Your task to perform on an android device: refresh tabs in the chrome app Image 0: 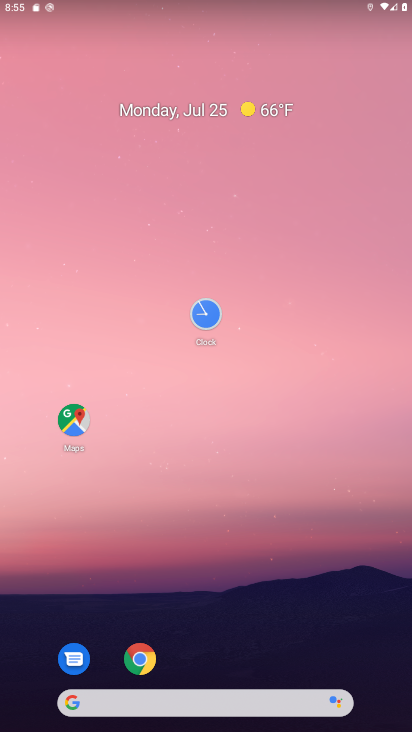
Step 0: drag from (255, 402) to (213, 149)
Your task to perform on an android device: refresh tabs in the chrome app Image 1: 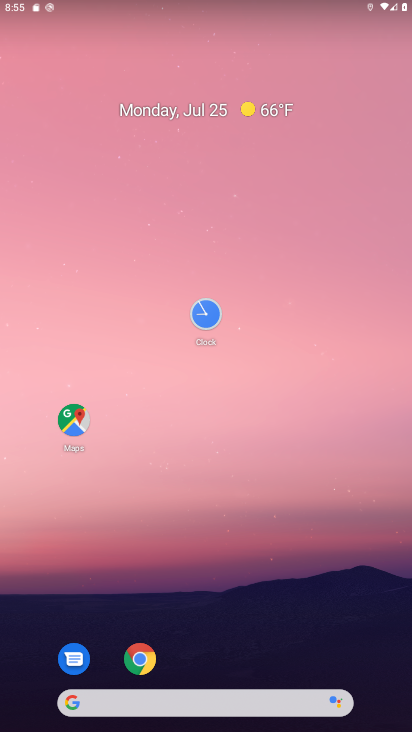
Step 1: drag from (235, 491) to (175, 70)
Your task to perform on an android device: refresh tabs in the chrome app Image 2: 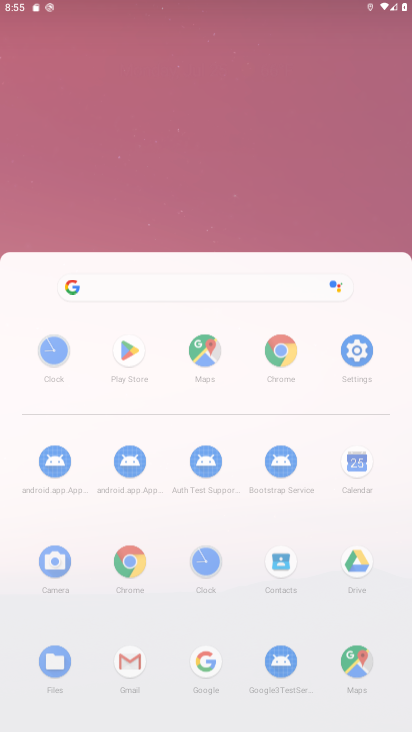
Step 2: drag from (307, 597) to (217, 103)
Your task to perform on an android device: refresh tabs in the chrome app Image 3: 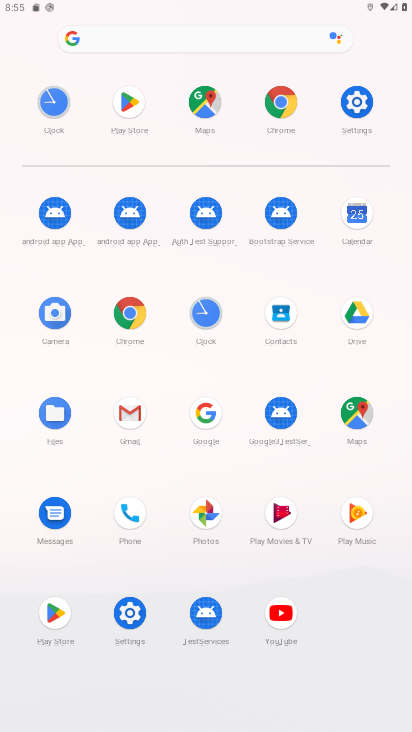
Step 3: click (287, 104)
Your task to perform on an android device: refresh tabs in the chrome app Image 4: 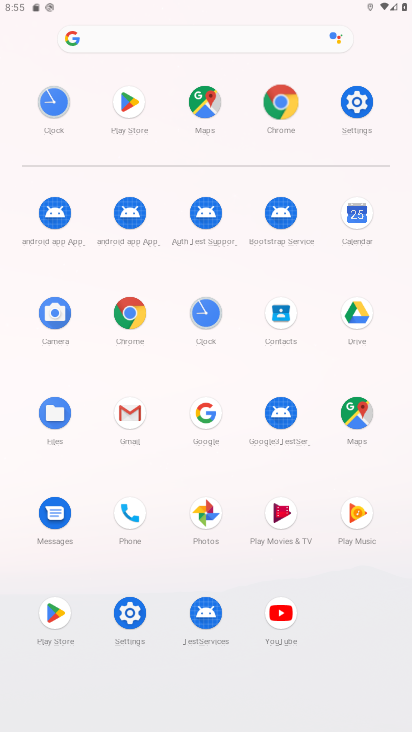
Step 4: click (290, 102)
Your task to perform on an android device: refresh tabs in the chrome app Image 5: 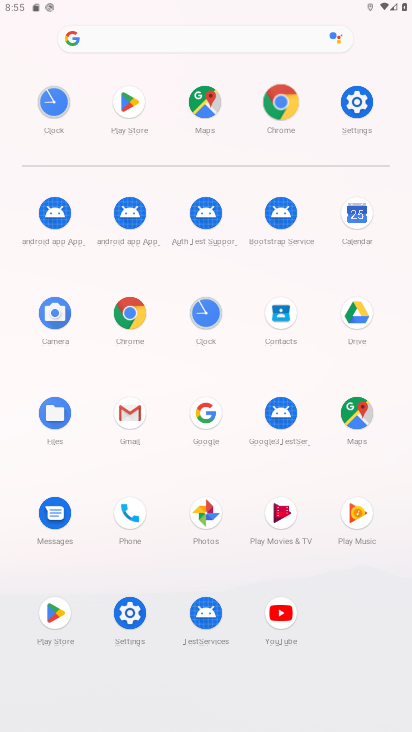
Step 5: click (290, 105)
Your task to perform on an android device: refresh tabs in the chrome app Image 6: 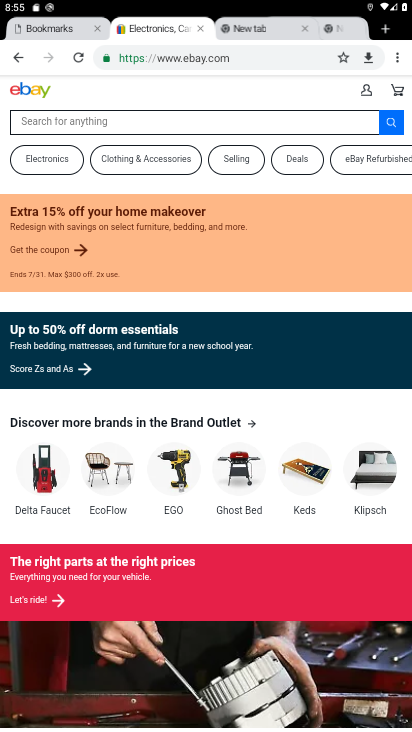
Step 6: click (71, 51)
Your task to perform on an android device: refresh tabs in the chrome app Image 7: 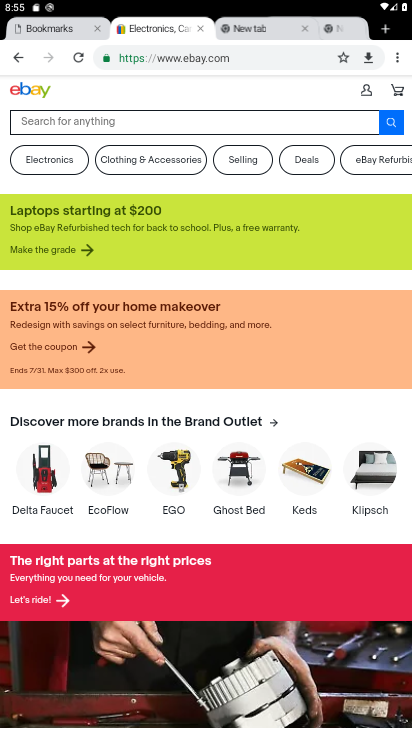
Step 7: task complete